Your task to perform on an android device: Go to location settings Image 0: 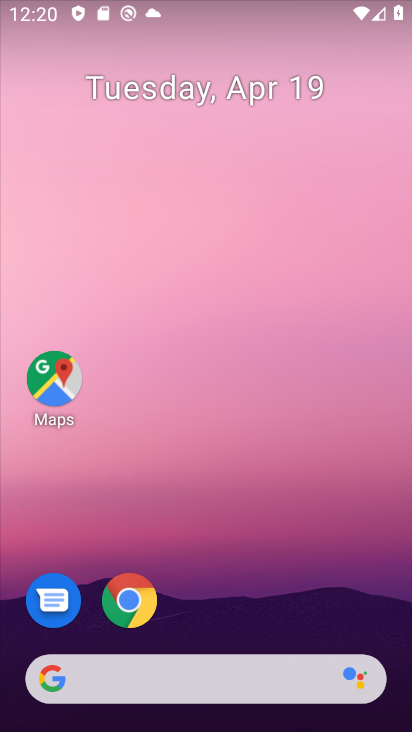
Step 0: drag from (216, 639) to (301, 4)
Your task to perform on an android device: Go to location settings Image 1: 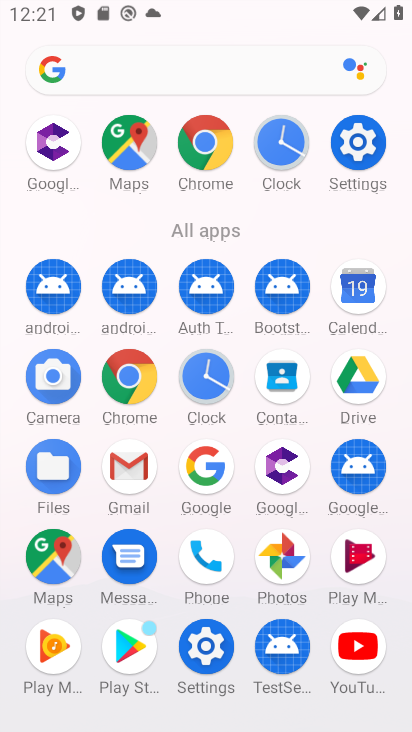
Step 1: click (201, 650)
Your task to perform on an android device: Go to location settings Image 2: 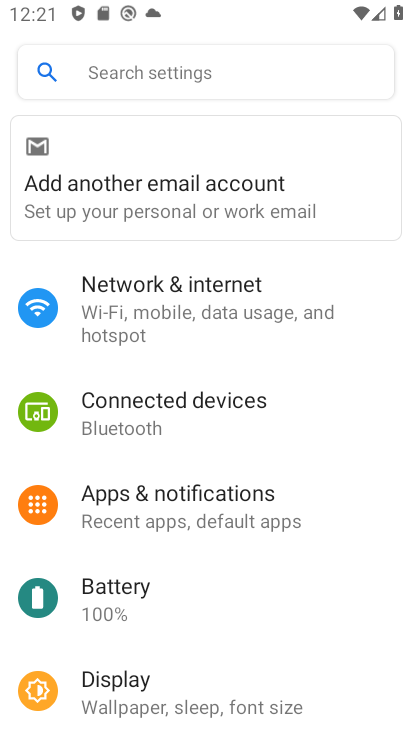
Step 2: drag from (187, 652) to (182, 212)
Your task to perform on an android device: Go to location settings Image 3: 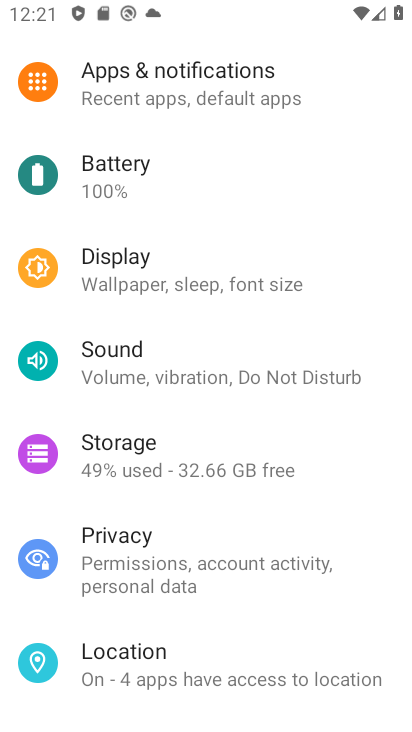
Step 3: click (168, 659)
Your task to perform on an android device: Go to location settings Image 4: 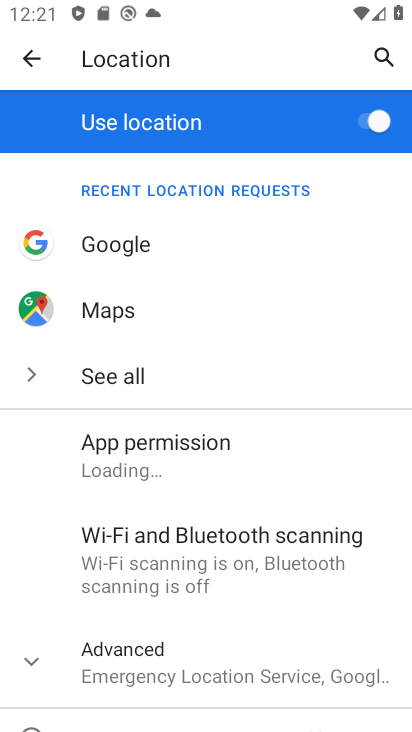
Step 4: click (167, 662)
Your task to perform on an android device: Go to location settings Image 5: 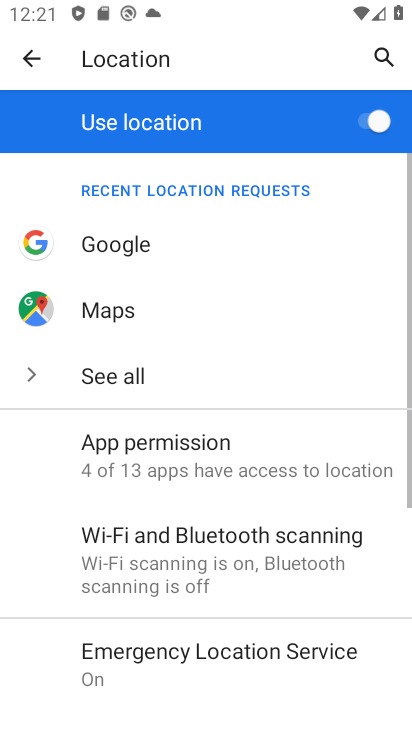
Step 5: task complete